Your task to perform on an android device: toggle javascript in the chrome app Image 0: 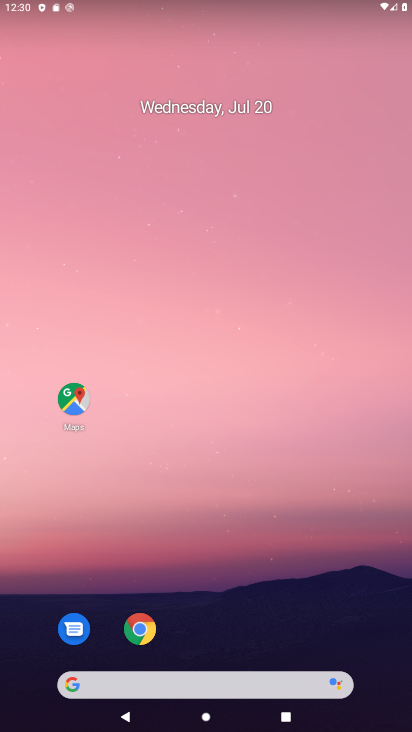
Step 0: click (148, 98)
Your task to perform on an android device: toggle javascript in the chrome app Image 1: 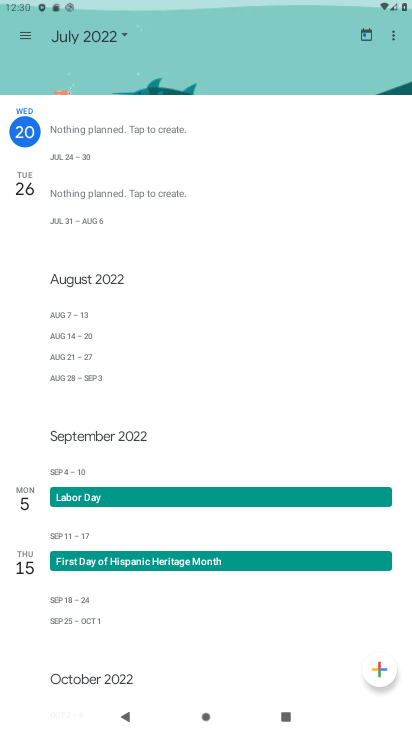
Step 1: press back button
Your task to perform on an android device: toggle javascript in the chrome app Image 2: 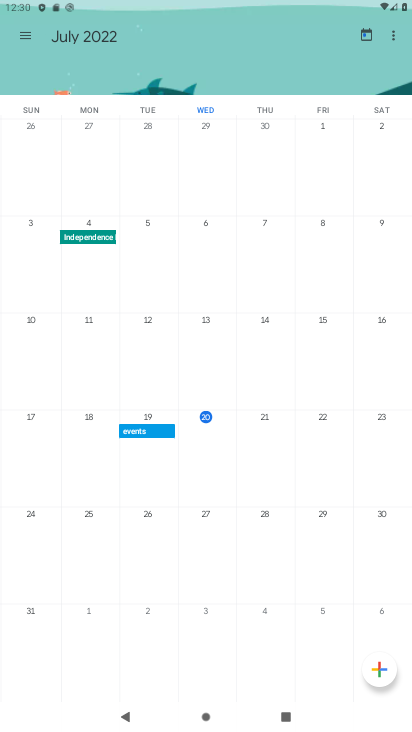
Step 2: press back button
Your task to perform on an android device: toggle javascript in the chrome app Image 3: 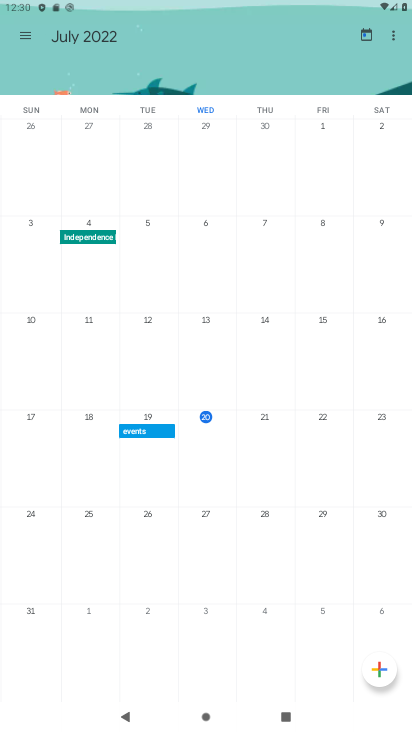
Step 3: press back button
Your task to perform on an android device: toggle javascript in the chrome app Image 4: 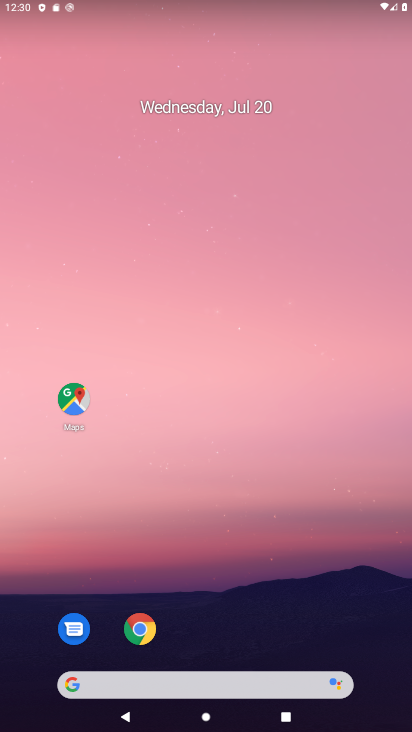
Step 4: press home button
Your task to perform on an android device: toggle javascript in the chrome app Image 5: 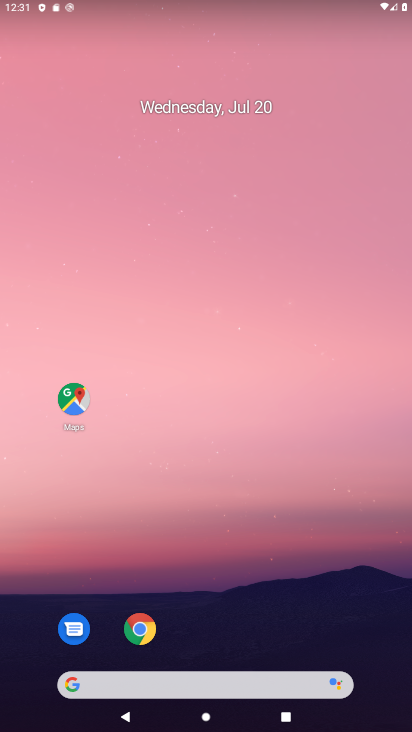
Step 5: drag from (234, 643) to (164, 199)
Your task to perform on an android device: toggle javascript in the chrome app Image 6: 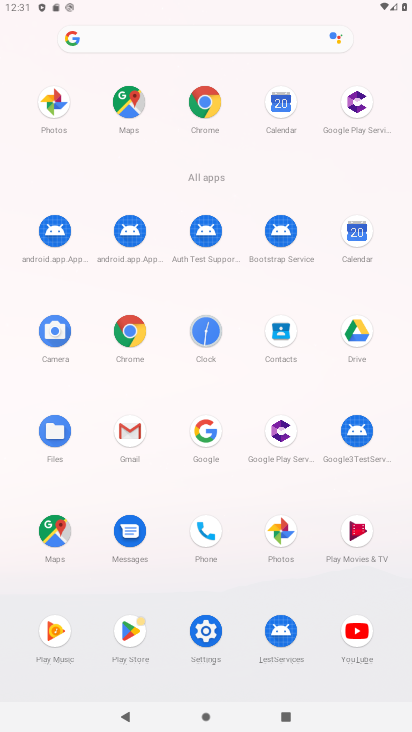
Step 6: click (208, 102)
Your task to perform on an android device: toggle javascript in the chrome app Image 7: 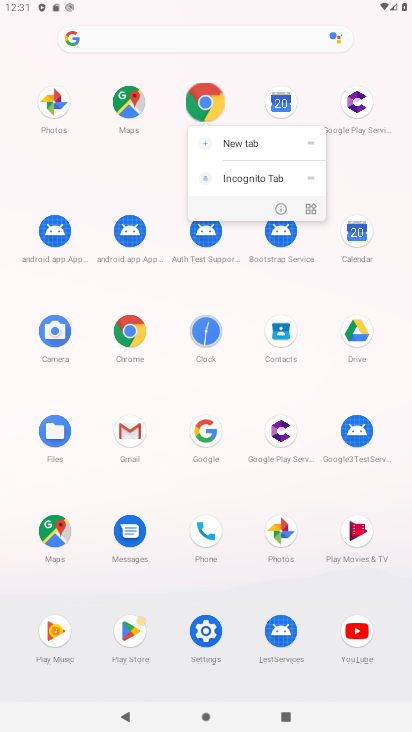
Step 7: click (211, 102)
Your task to perform on an android device: toggle javascript in the chrome app Image 8: 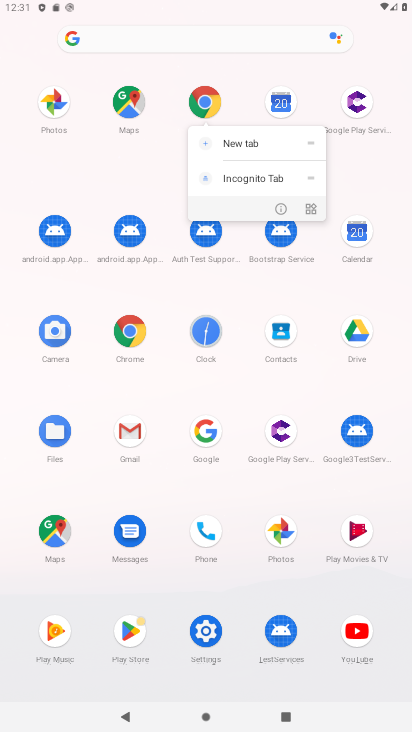
Step 8: click (133, 345)
Your task to perform on an android device: toggle javascript in the chrome app Image 9: 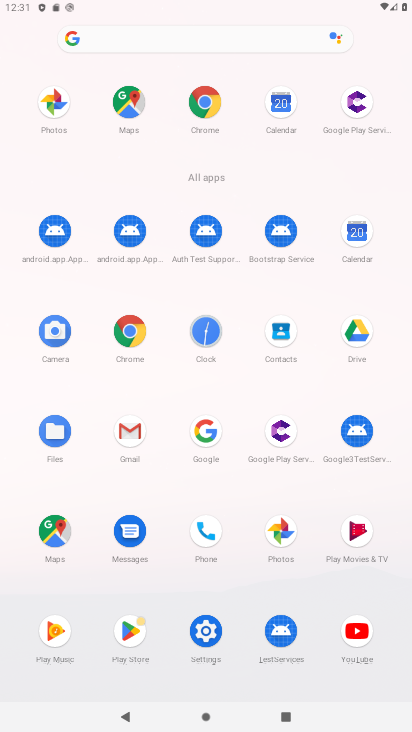
Step 9: click (133, 337)
Your task to perform on an android device: toggle javascript in the chrome app Image 10: 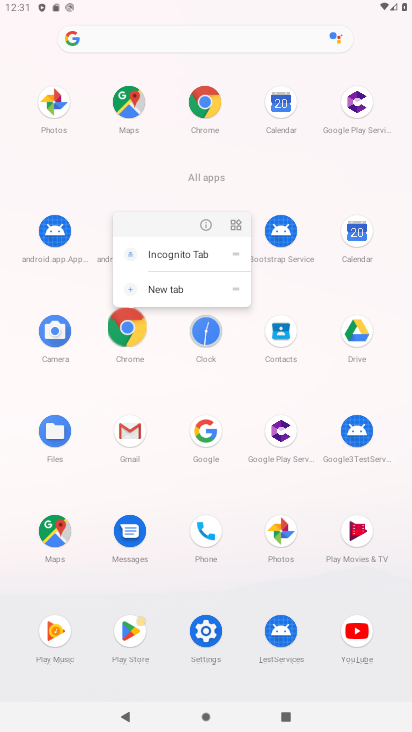
Step 10: click (130, 333)
Your task to perform on an android device: toggle javascript in the chrome app Image 11: 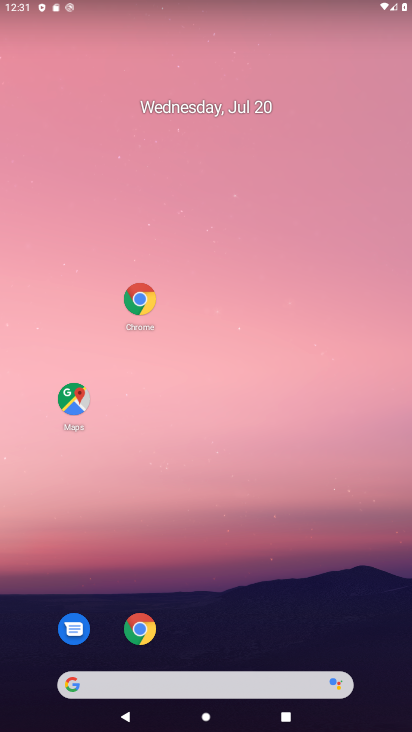
Step 11: drag from (175, 570) to (169, 245)
Your task to perform on an android device: toggle javascript in the chrome app Image 12: 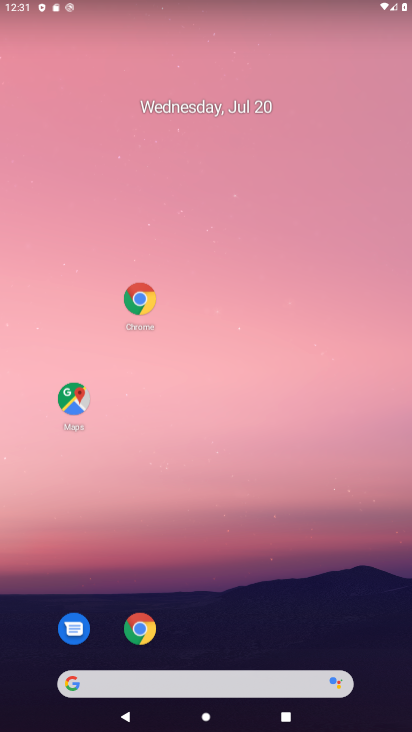
Step 12: click (135, 298)
Your task to perform on an android device: toggle javascript in the chrome app Image 13: 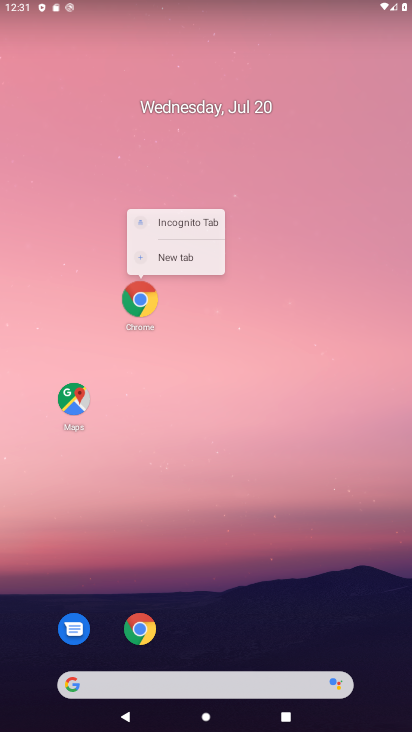
Step 13: click (138, 298)
Your task to perform on an android device: toggle javascript in the chrome app Image 14: 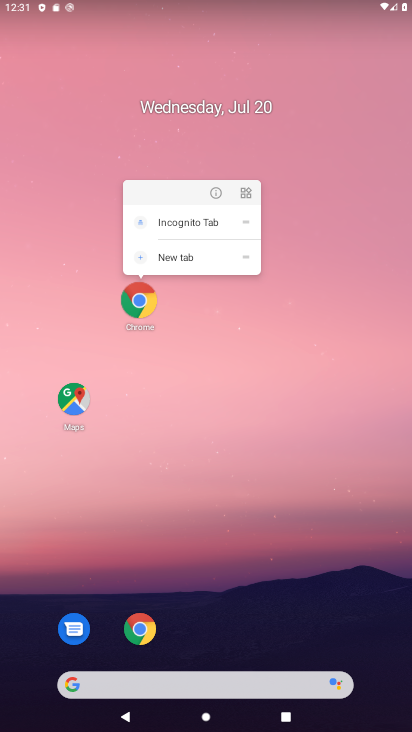
Step 14: click (147, 295)
Your task to perform on an android device: toggle javascript in the chrome app Image 15: 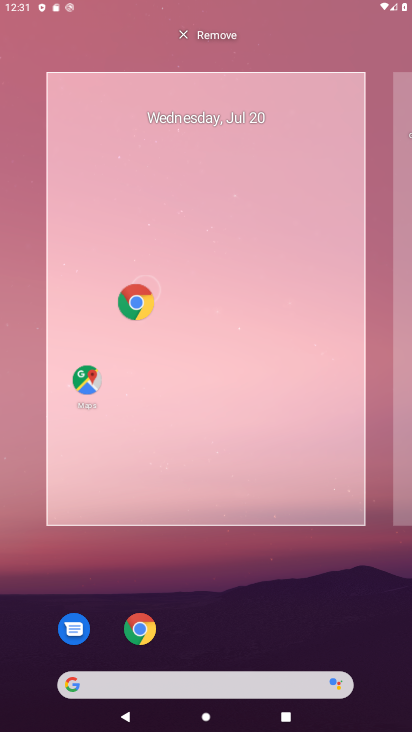
Step 15: click (143, 298)
Your task to perform on an android device: toggle javascript in the chrome app Image 16: 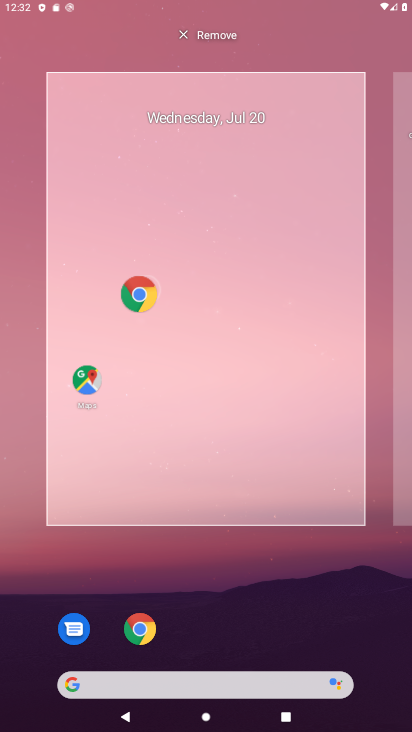
Step 16: drag from (216, 488) to (218, 65)
Your task to perform on an android device: toggle javascript in the chrome app Image 17: 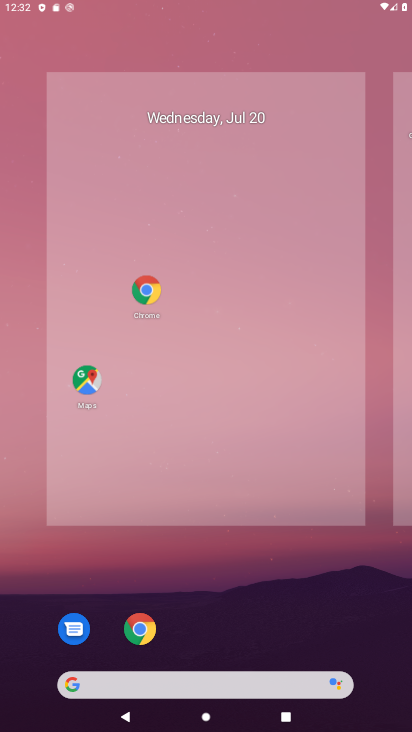
Step 17: drag from (225, 456) to (190, 197)
Your task to perform on an android device: toggle javascript in the chrome app Image 18: 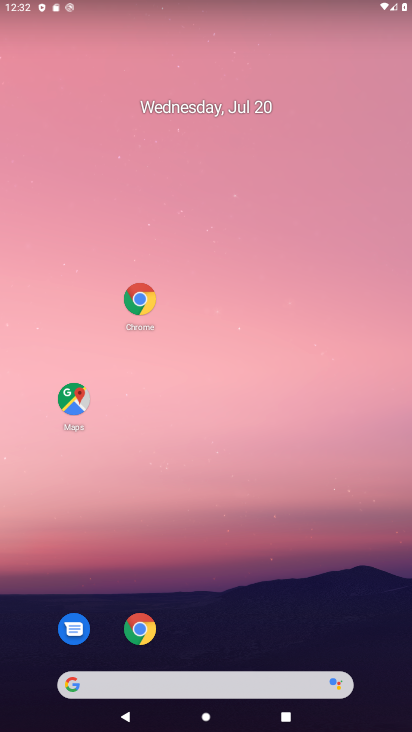
Step 18: click (136, 302)
Your task to perform on an android device: toggle javascript in the chrome app Image 19: 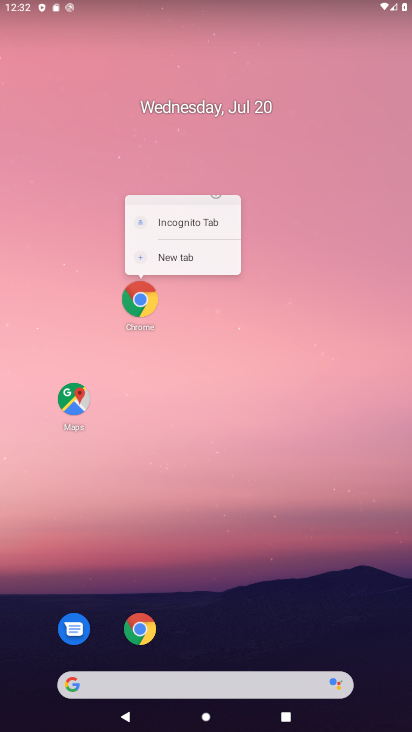
Step 19: click (136, 306)
Your task to perform on an android device: toggle javascript in the chrome app Image 20: 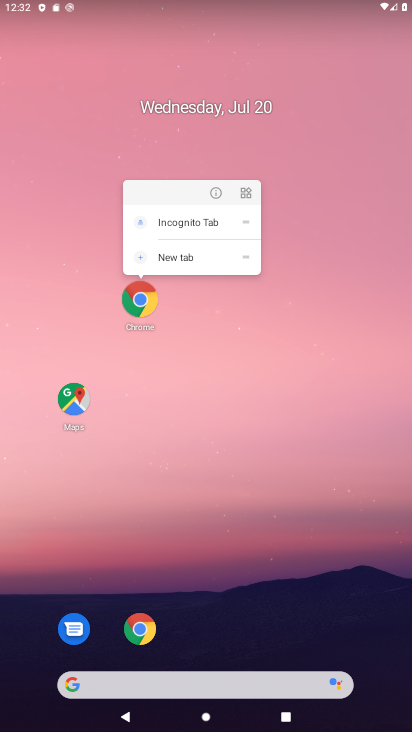
Step 20: click (143, 306)
Your task to perform on an android device: toggle javascript in the chrome app Image 21: 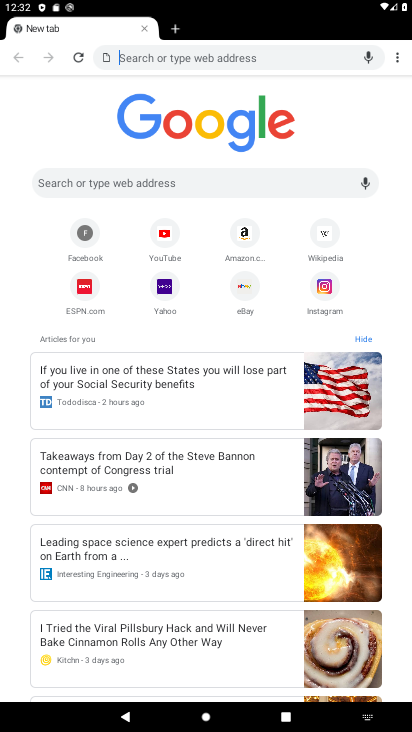
Step 21: drag from (391, 59) to (281, 260)
Your task to perform on an android device: toggle javascript in the chrome app Image 22: 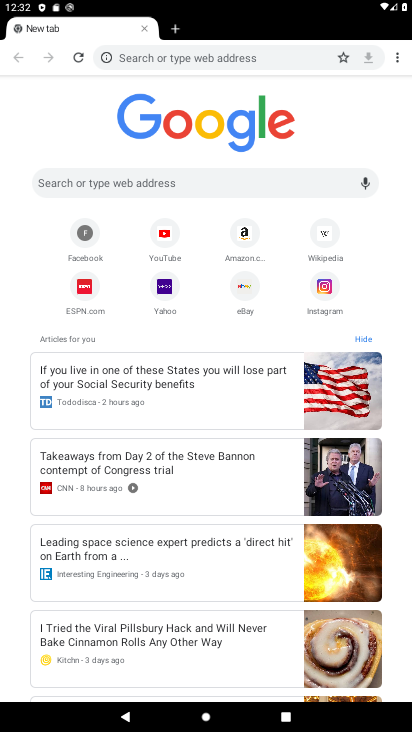
Step 22: click (281, 260)
Your task to perform on an android device: toggle javascript in the chrome app Image 23: 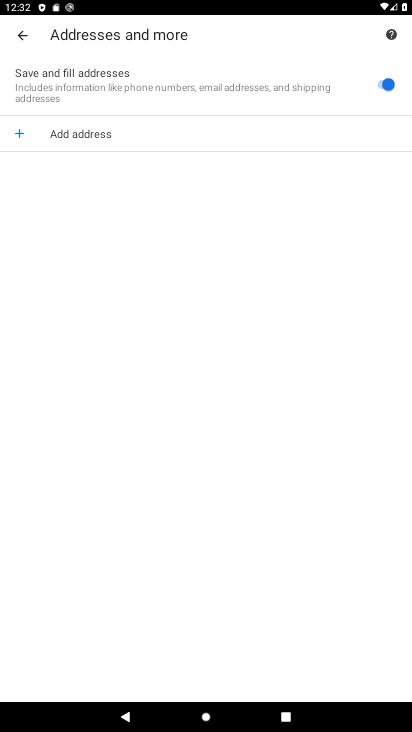
Step 23: click (16, 31)
Your task to perform on an android device: toggle javascript in the chrome app Image 24: 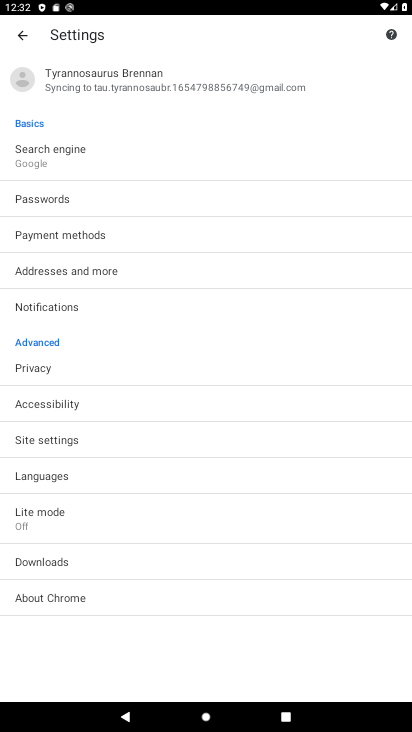
Step 24: click (33, 439)
Your task to perform on an android device: toggle javascript in the chrome app Image 25: 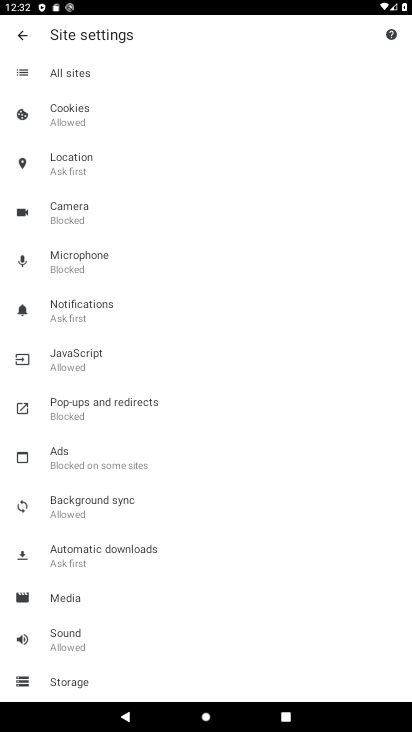
Step 25: click (72, 357)
Your task to perform on an android device: toggle javascript in the chrome app Image 26: 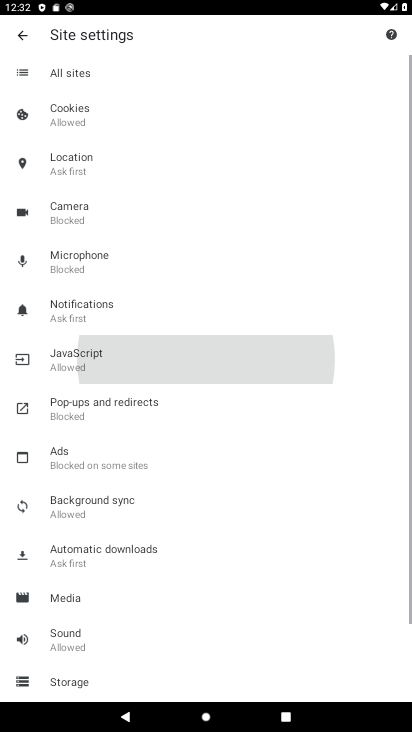
Step 26: click (72, 357)
Your task to perform on an android device: toggle javascript in the chrome app Image 27: 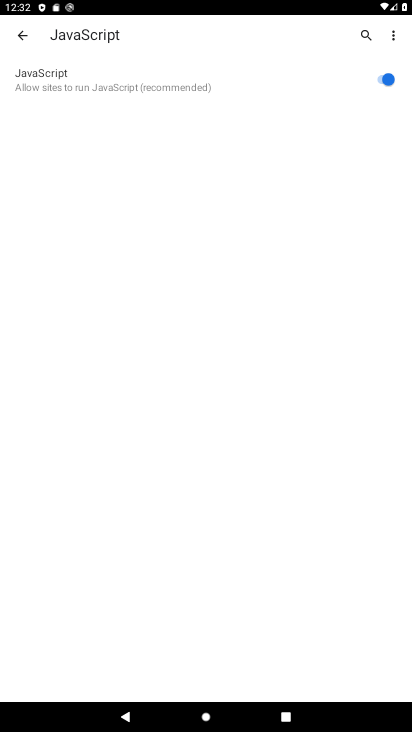
Step 27: click (386, 74)
Your task to perform on an android device: toggle javascript in the chrome app Image 28: 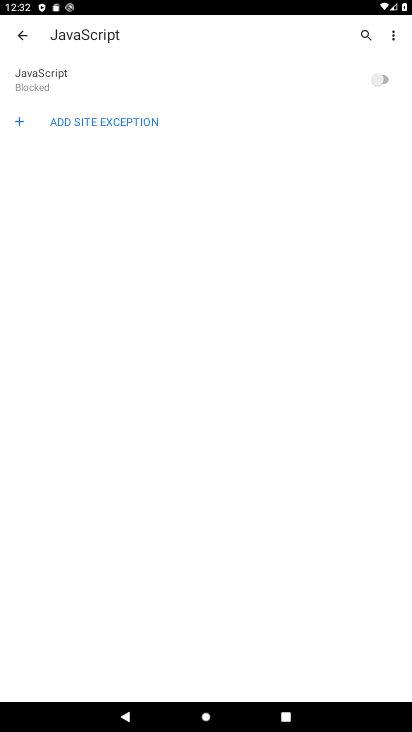
Step 28: task complete